Your task to perform on an android device: delete the emails in spam in the gmail app Image 0: 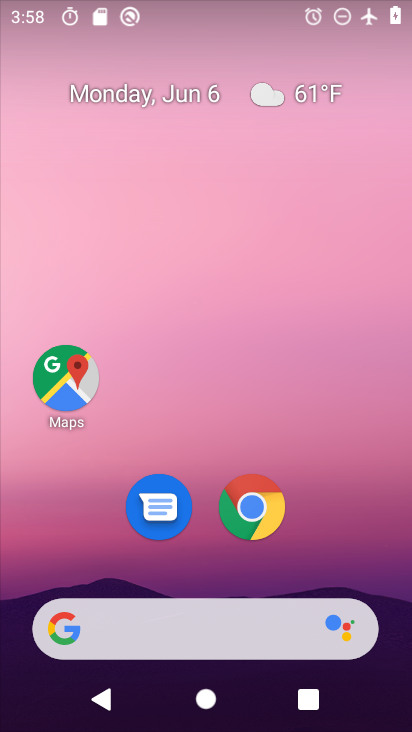
Step 0: drag from (211, 575) to (206, 179)
Your task to perform on an android device: delete the emails in spam in the gmail app Image 1: 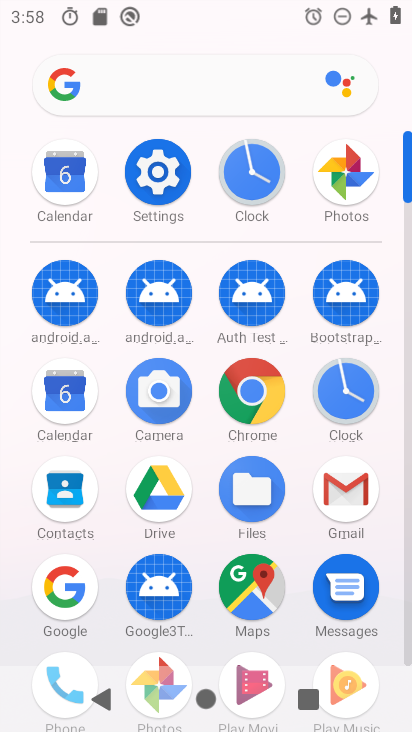
Step 1: click (322, 478)
Your task to perform on an android device: delete the emails in spam in the gmail app Image 2: 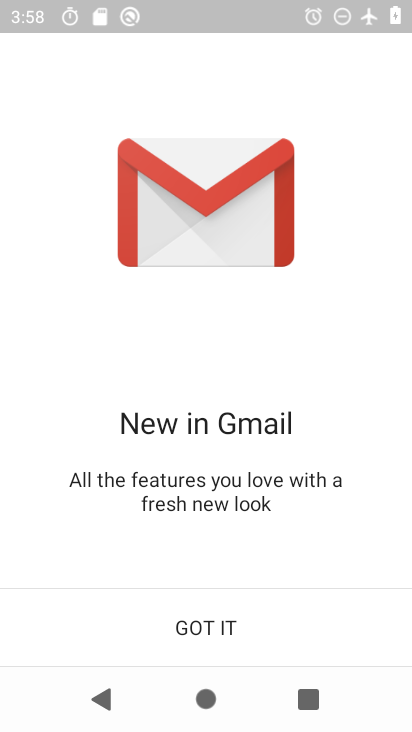
Step 2: click (170, 638)
Your task to perform on an android device: delete the emails in spam in the gmail app Image 3: 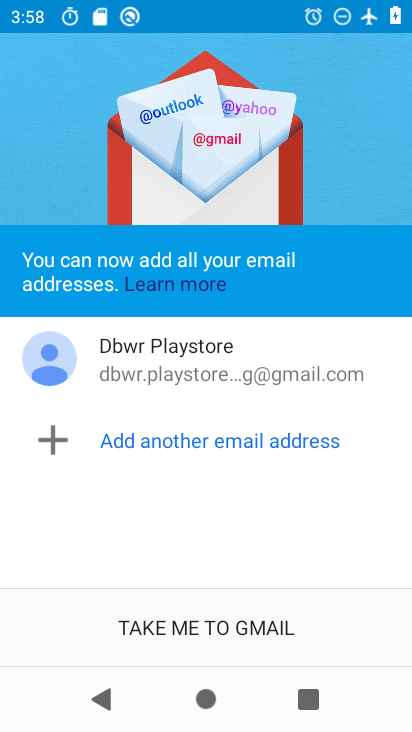
Step 3: click (185, 626)
Your task to perform on an android device: delete the emails in spam in the gmail app Image 4: 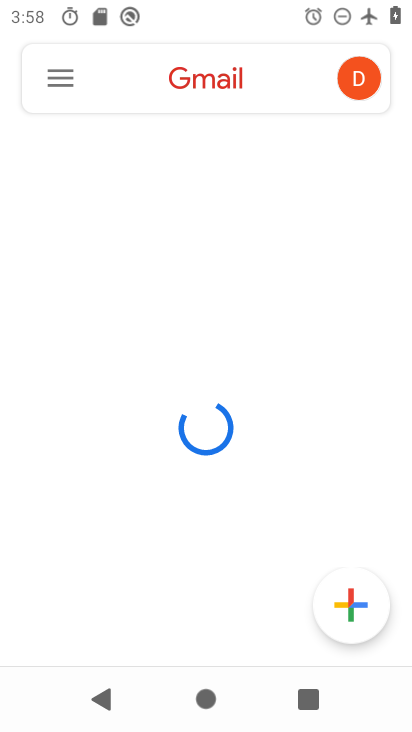
Step 4: click (66, 74)
Your task to perform on an android device: delete the emails in spam in the gmail app Image 5: 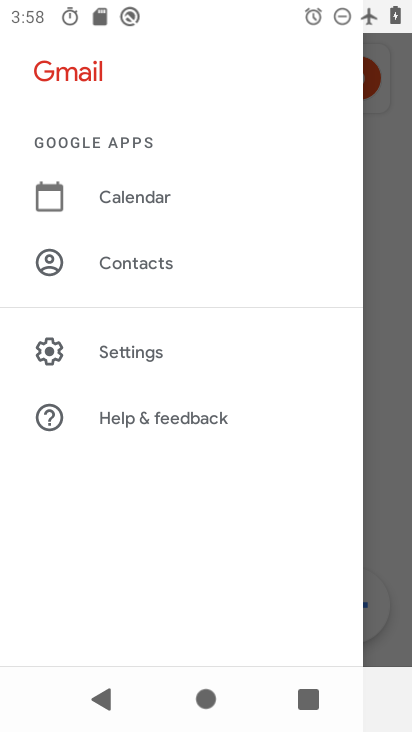
Step 5: click (383, 181)
Your task to perform on an android device: delete the emails in spam in the gmail app Image 6: 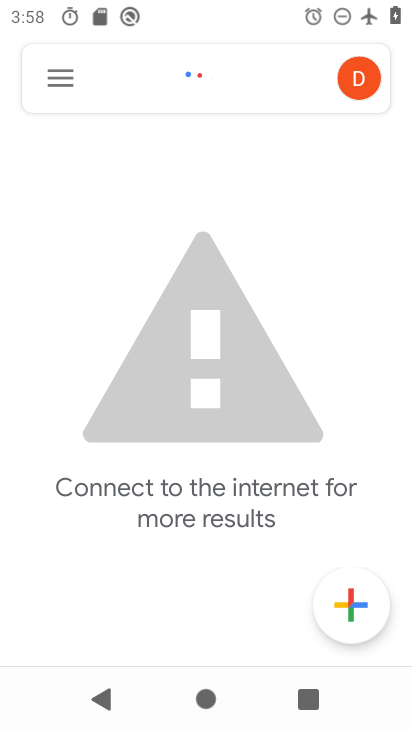
Step 6: click (63, 80)
Your task to perform on an android device: delete the emails in spam in the gmail app Image 7: 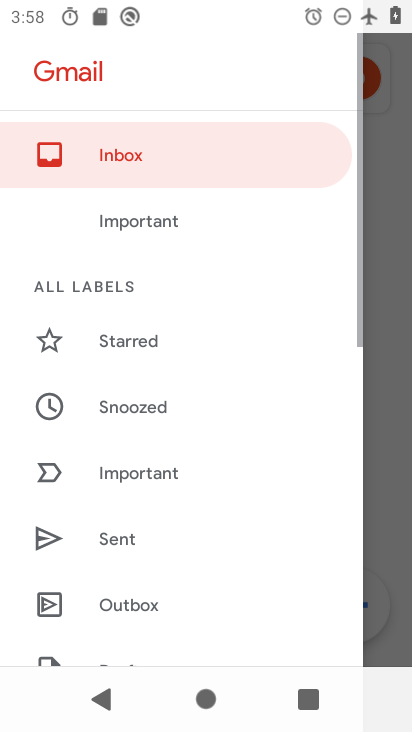
Step 7: drag from (170, 556) to (196, 394)
Your task to perform on an android device: delete the emails in spam in the gmail app Image 8: 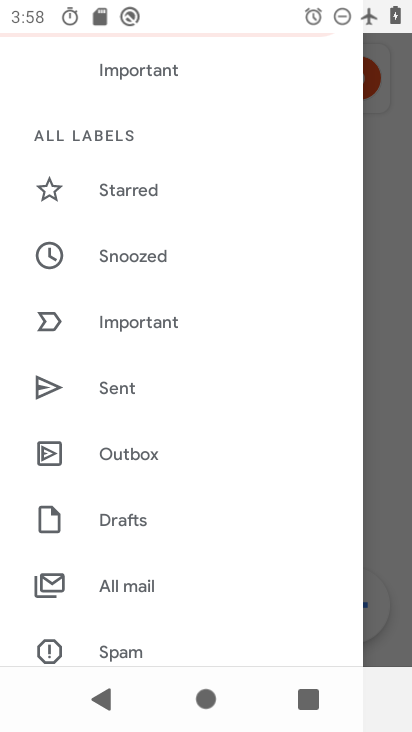
Step 8: click (172, 580)
Your task to perform on an android device: delete the emails in spam in the gmail app Image 9: 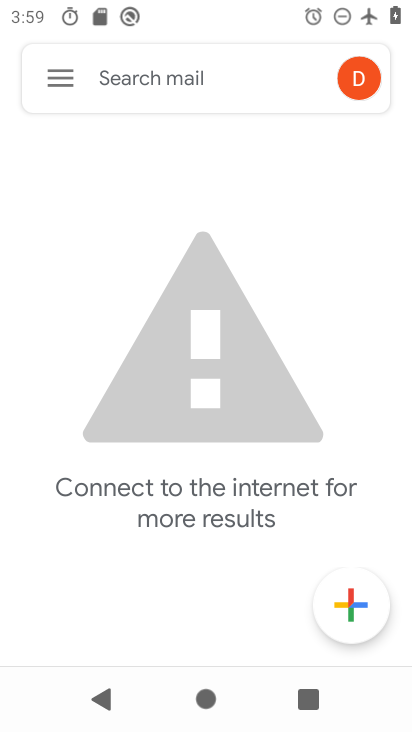
Step 9: task complete